Your task to perform on an android device: search for starred emails in the gmail app Image 0: 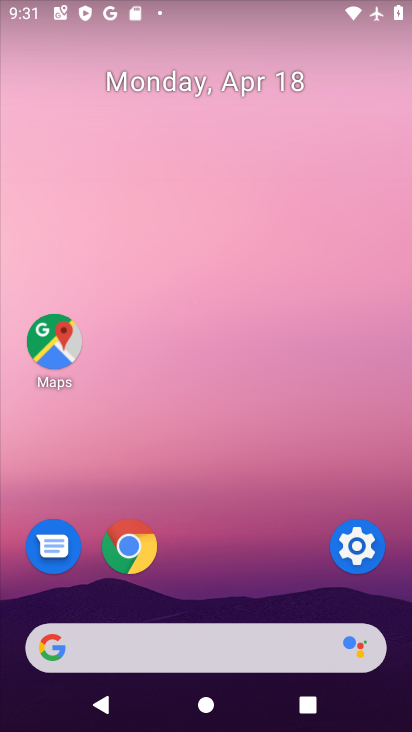
Step 0: drag from (215, 565) to (206, 164)
Your task to perform on an android device: search for starred emails in the gmail app Image 1: 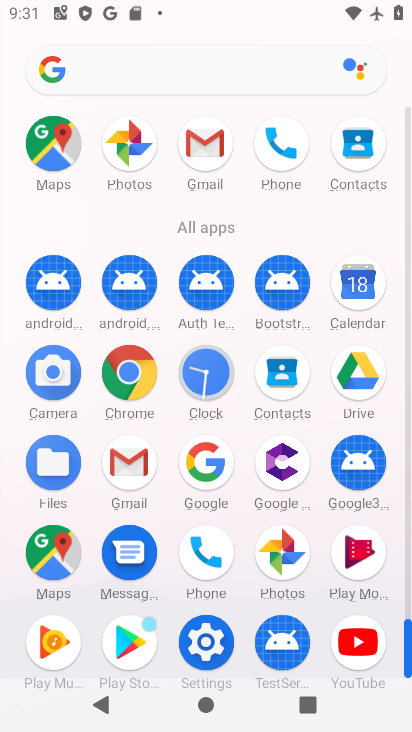
Step 1: click (131, 459)
Your task to perform on an android device: search for starred emails in the gmail app Image 2: 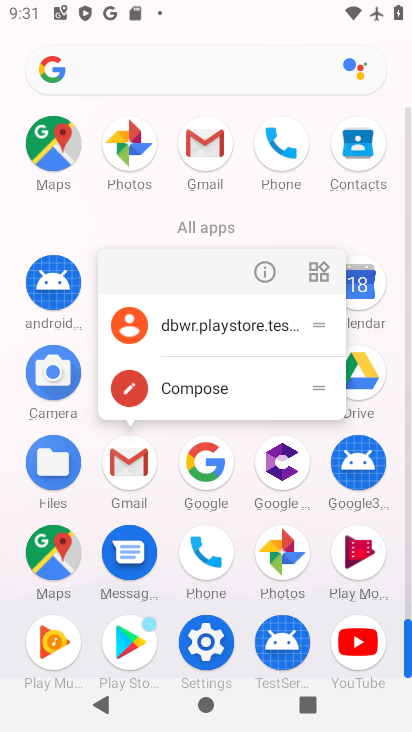
Step 2: click (135, 481)
Your task to perform on an android device: search for starred emails in the gmail app Image 3: 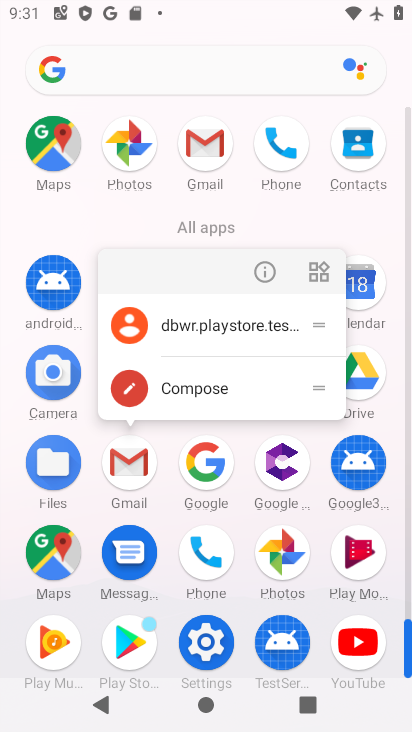
Step 3: click (135, 481)
Your task to perform on an android device: search for starred emails in the gmail app Image 4: 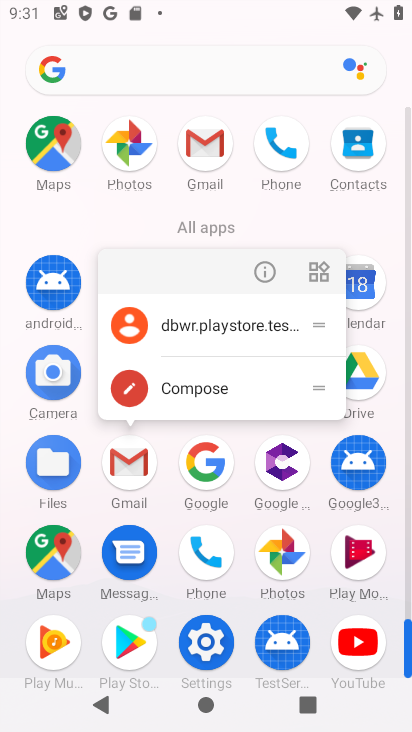
Step 4: click (135, 481)
Your task to perform on an android device: search for starred emails in the gmail app Image 5: 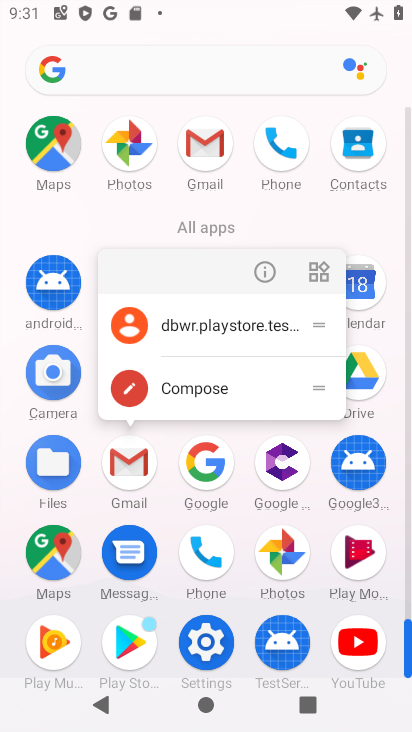
Step 5: click (215, 163)
Your task to perform on an android device: search for starred emails in the gmail app Image 6: 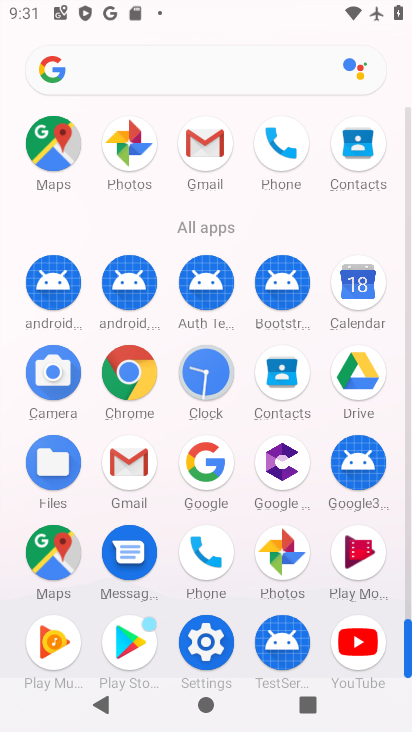
Step 6: click (201, 152)
Your task to perform on an android device: search for starred emails in the gmail app Image 7: 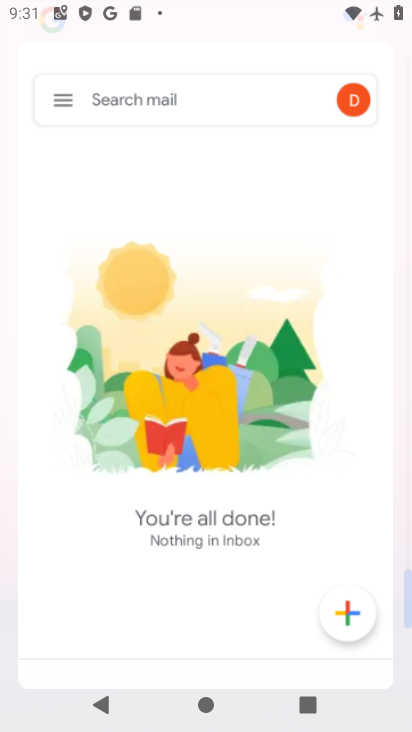
Step 7: drag from (237, 145) to (192, 125)
Your task to perform on an android device: search for starred emails in the gmail app Image 8: 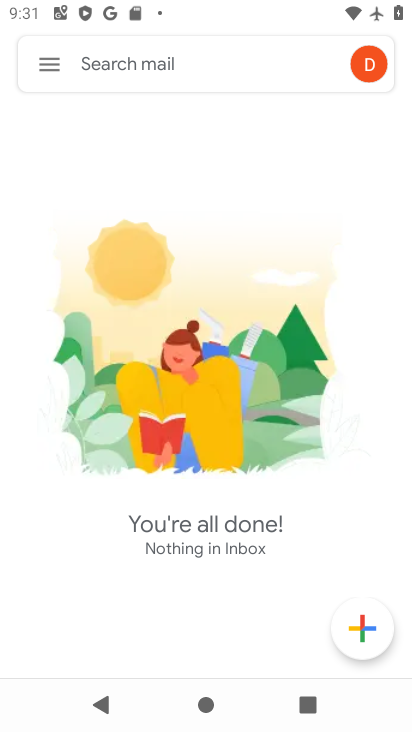
Step 8: click (56, 64)
Your task to perform on an android device: search for starred emails in the gmail app Image 9: 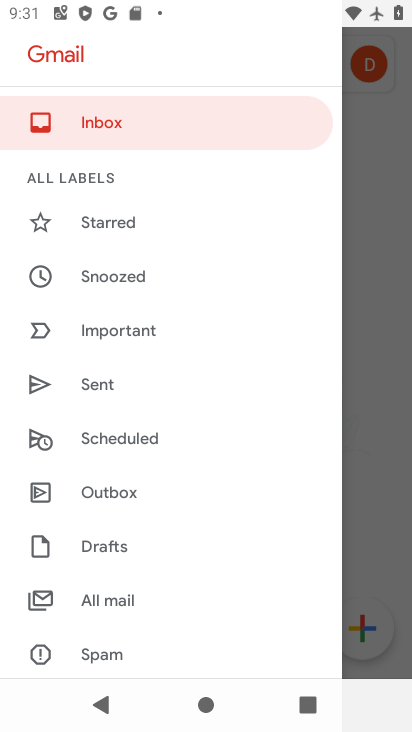
Step 9: click (116, 222)
Your task to perform on an android device: search for starred emails in the gmail app Image 10: 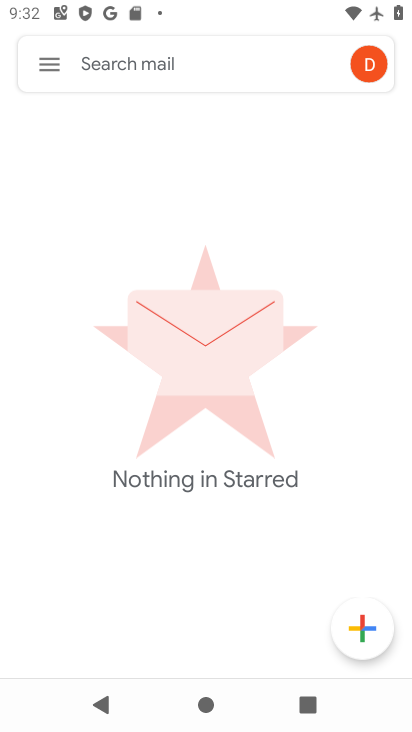
Step 10: task complete